Your task to perform on an android device: Open Google Maps and go to "Timeline" Image 0: 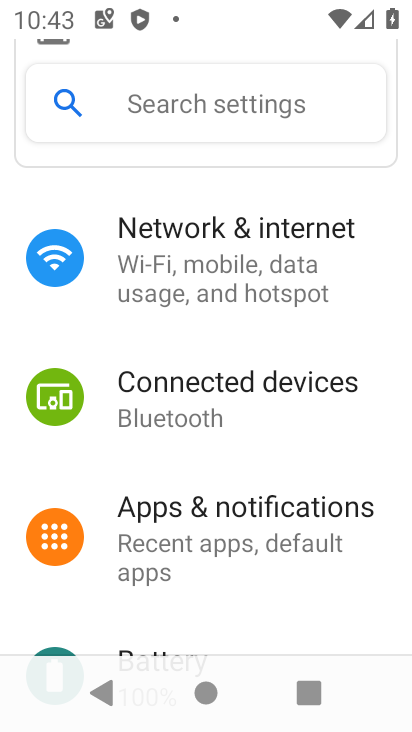
Step 0: press home button
Your task to perform on an android device: Open Google Maps and go to "Timeline" Image 1: 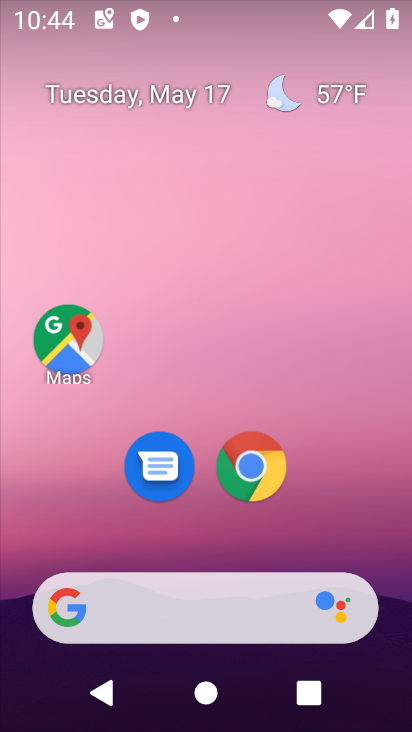
Step 1: drag from (292, 643) to (402, 81)
Your task to perform on an android device: Open Google Maps and go to "Timeline" Image 2: 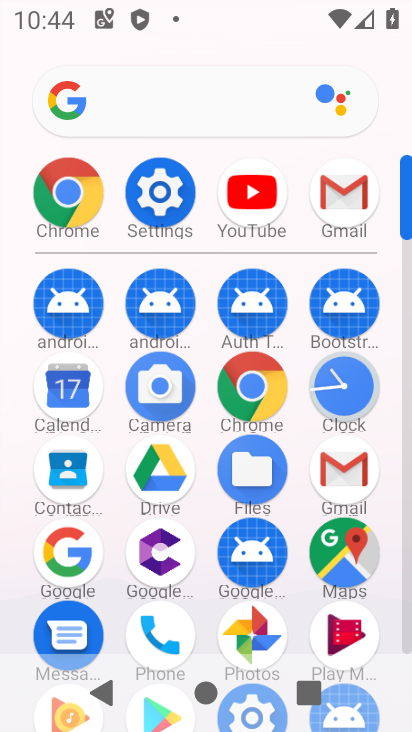
Step 2: click (344, 539)
Your task to perform on an android device: Open Google Maps and go to "Timeline" Image 3: 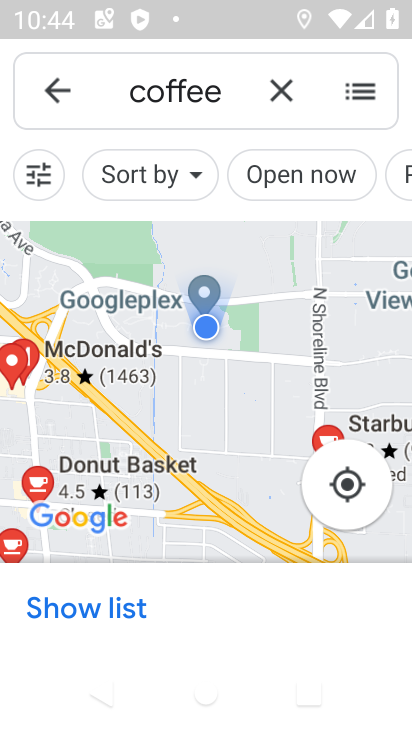
Step 3: click (47, 77)
Your task to perform on an android device: Open Google Maps and go to "Timeline" Image 4: 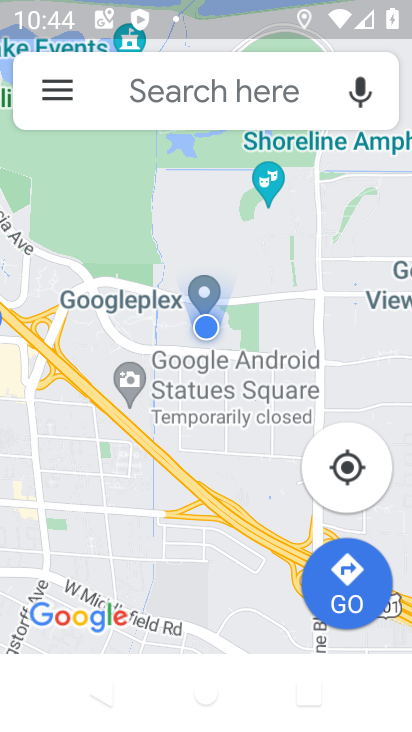
Step 4: click (50, 99)
Your task to perform on an android device: Open Google Maps and go to "Timeline" Image 5: 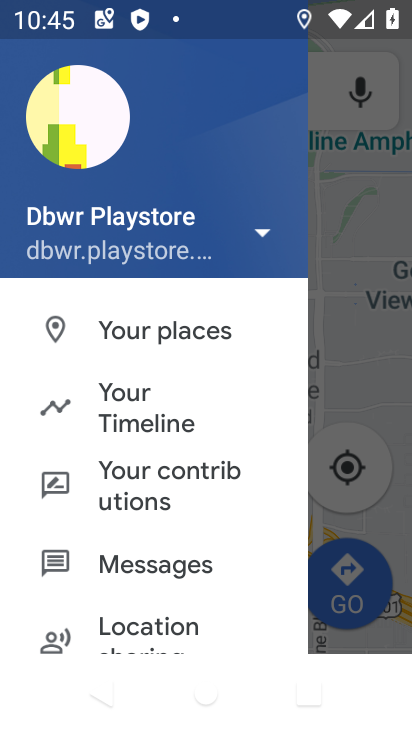
Step 5: click (151, 409)
Your task to perform on an android device: Open Google Maps and go to "Timeline" Image 6: 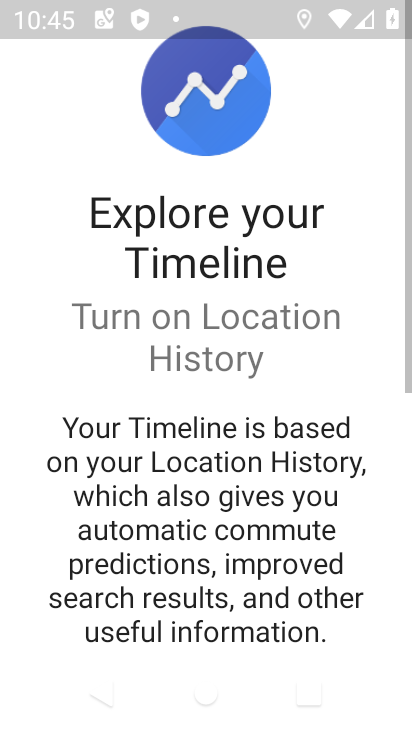
Step 6: drag from (203, 547) to (284, 184)
Your task to perform on an android device: Open Google Maps and go to "Timeline" Image 7: 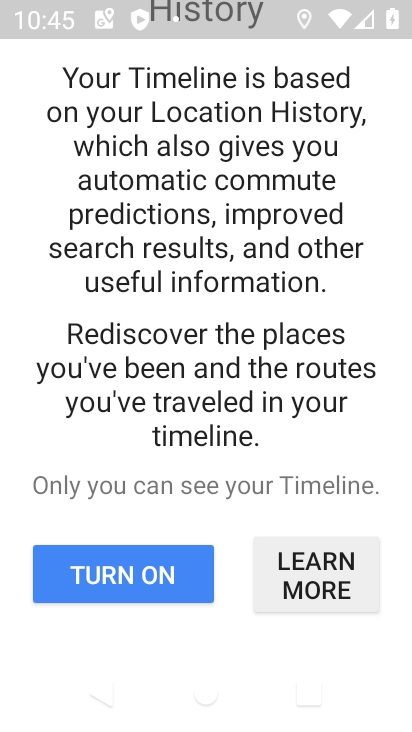
Step 7: click (137, 569)
Your task to perform on an android device: Open Google Maps and go to "Timeline" Image 8: 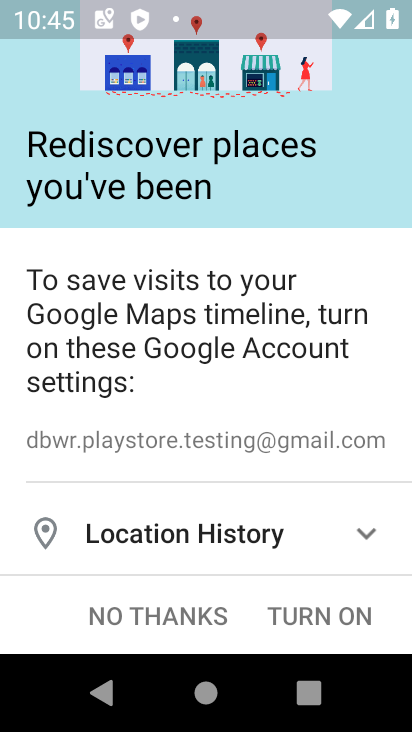
Step 8: task complete